Your task to perform on an android device: all mails in gmail Image 0: 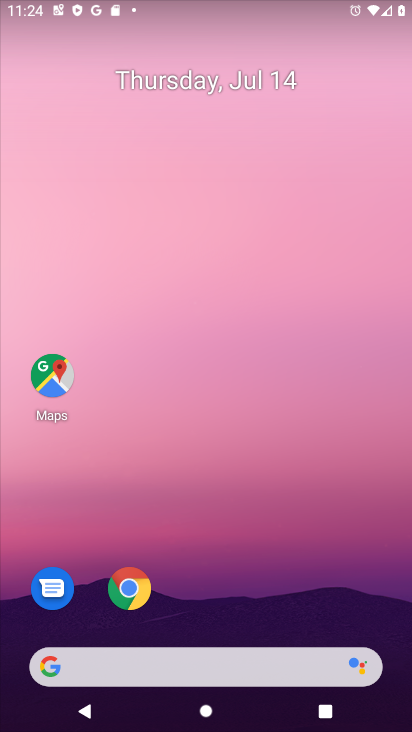
Step 0: drag from (333, 385) to (332, 166)
Your task to perform on an android device: all mails in gmail Image 1: 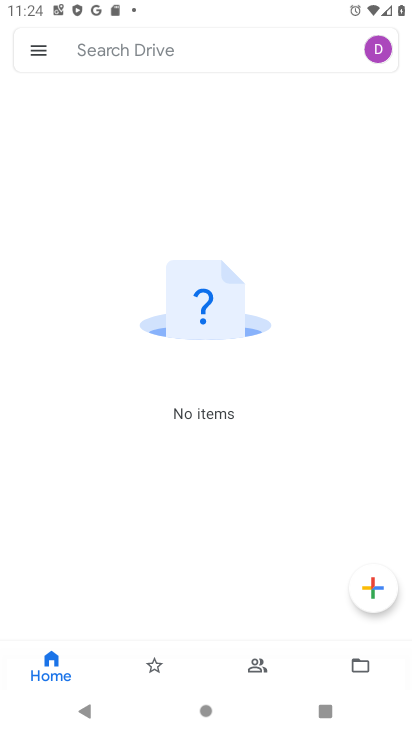
Step 1: press home button
Your task to perform on an android device: all mails in gmail Image 2: 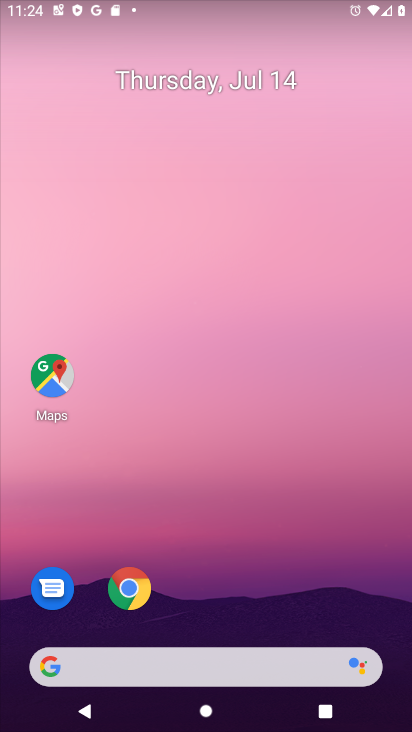
Step 2: drag from (235, 596) to (256, 92)
Your task to perform on an android device: all mails in gmail Image 3: 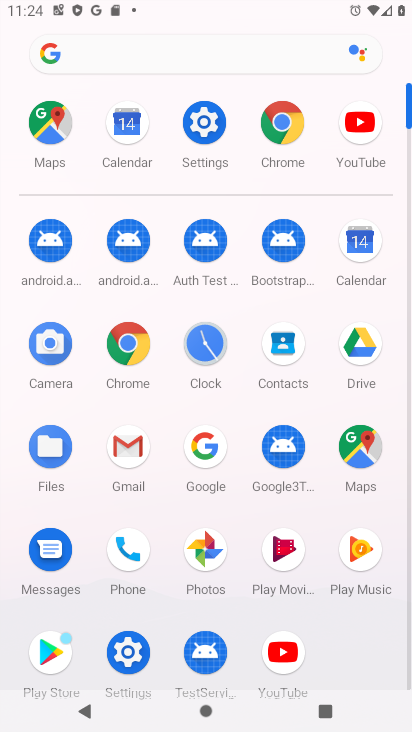
Step 3: click (125, 445)
Your task to perform on an android device: all mails in gmail Image 4: 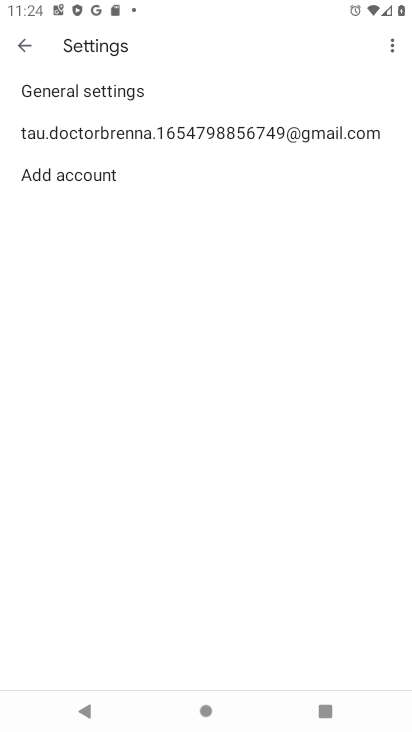
Step 4: click (156, 136)
Your task to perform on an android device: all mails in gmail Image 5: 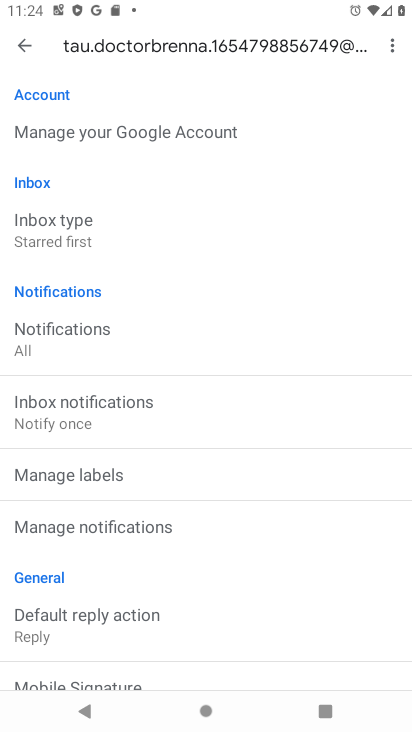
Step 5: click (28, 44)
Your task to perform on an android device: all mails in gmail Image 6: 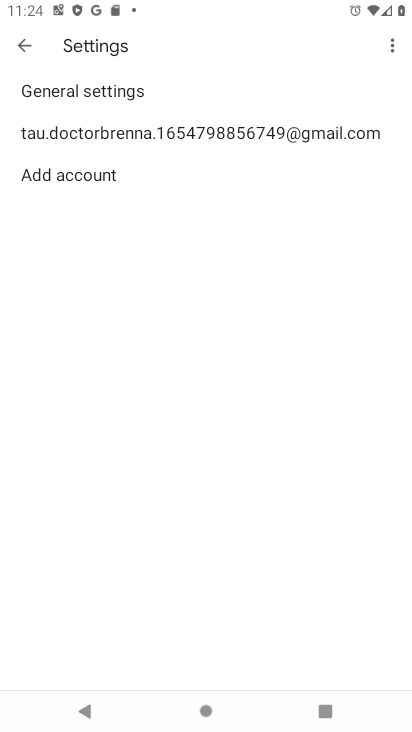
Step 6: click (28, 44)
Your task to perform on an android device: all mails in gmail Image 7: 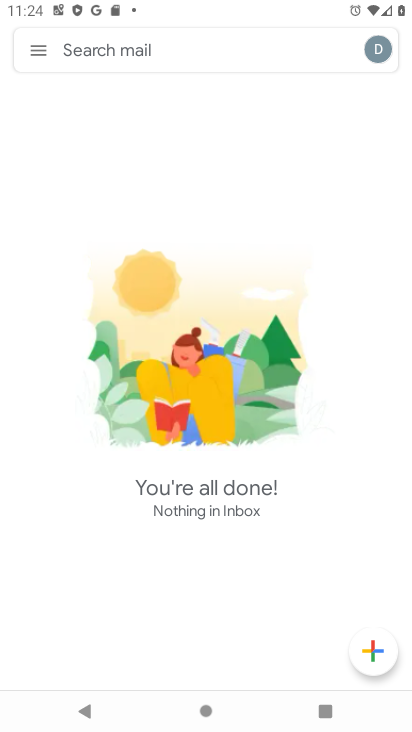
Step 7: click (28, 44)
Your task to perform on an android device: all mails in gmail Image 8: 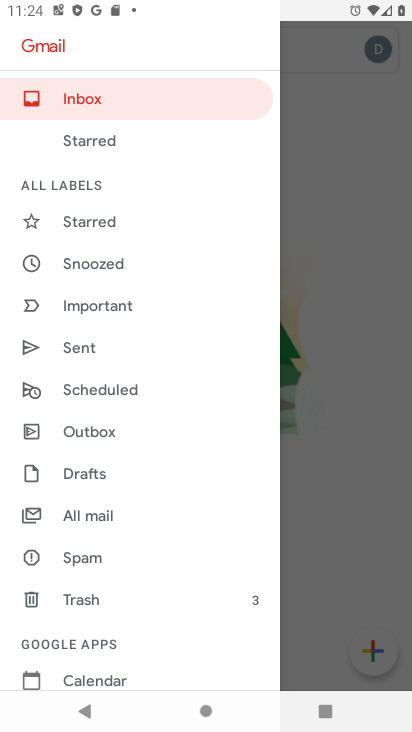
Step 8: click (73, 515)
Your task to perform on an android device: all mails in gmail Image 9: 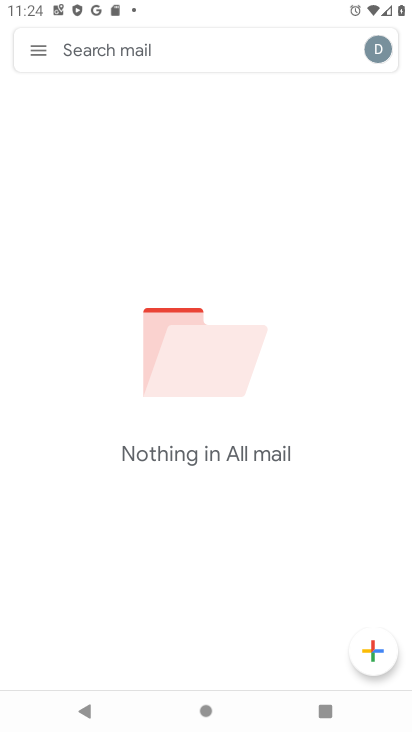
Step 9: task complete